Your task to perform on an android device: install app "HBO Max: Stream TV & Movies" Image 0: 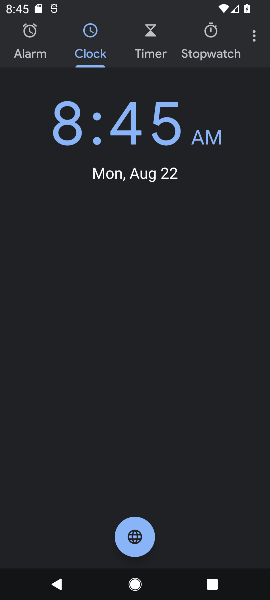
Step 0: press home button
Your task to perform on an android device: install app "HBO Max: Stream TV & Movies" Image 1: 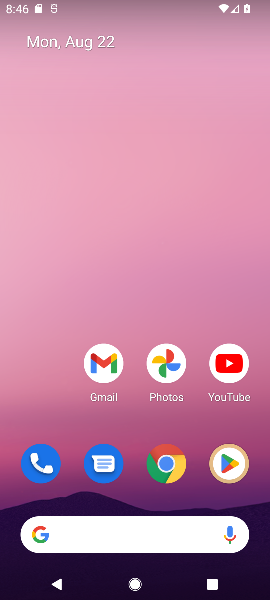
Step 1: click (224, 462)
Your task to perform on an android device: install app "HBO Max: Stream TV & Movies" Image 2: 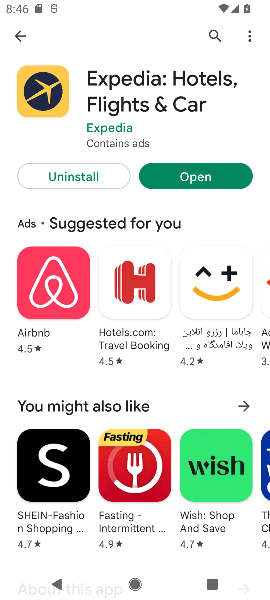
Step 2: click (21, 40)
Your task to perform on an android device: install app "HBO Max: Stream TV & Movies" Image 3: 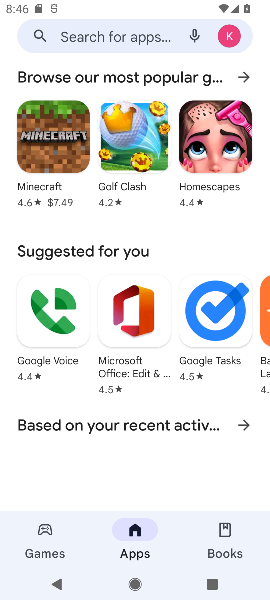
Step 3: click (116, 36)
Your task to perform on an android device: install app "HBO Max: Stream TV & Movies" Image 4: 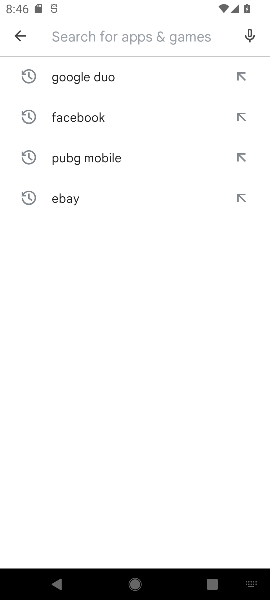
Step 4: type "HBO Max: Stream TV & Movies"
Your task to perform on an android device: install app "HBO Max: Stream TV & Movies" Image 5: 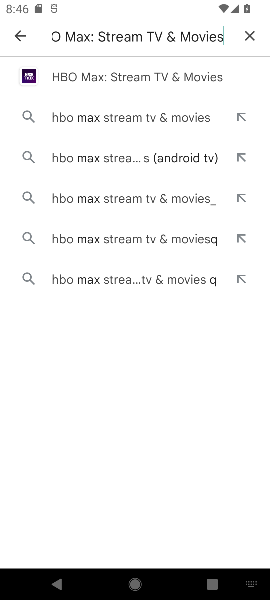
Step 5: click (104, 80)
Your task to perform on an android device: install app "HBO Max: Stream TV & Movies" Image 6: 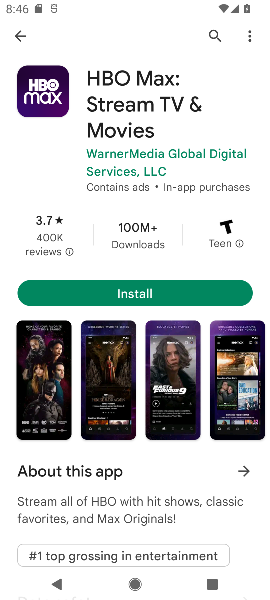
Step 6: click (152, 292)
Your task to perform on an android device: install app "HBO Max: Stream TV & Movies" Image 7: 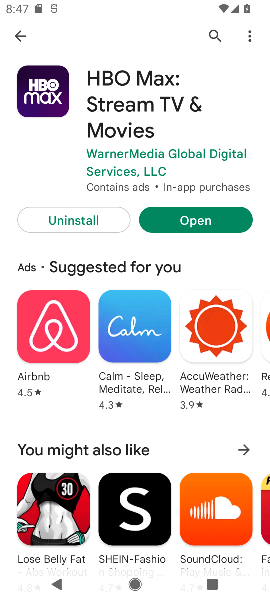
Step 7: click (232, 210)
Your task to perform on an android device: install app "HBO Max: Stream TV & Movies" Image 8: 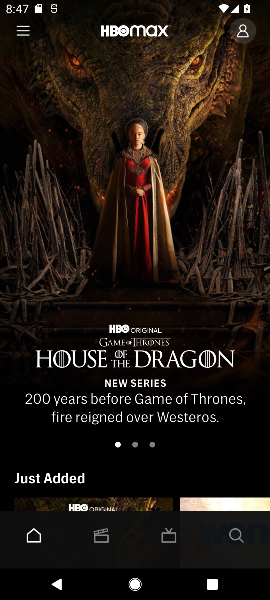
Step 8: task complete